Your task to perform on an android device: What's the weather going to be this weekend? Image 0: 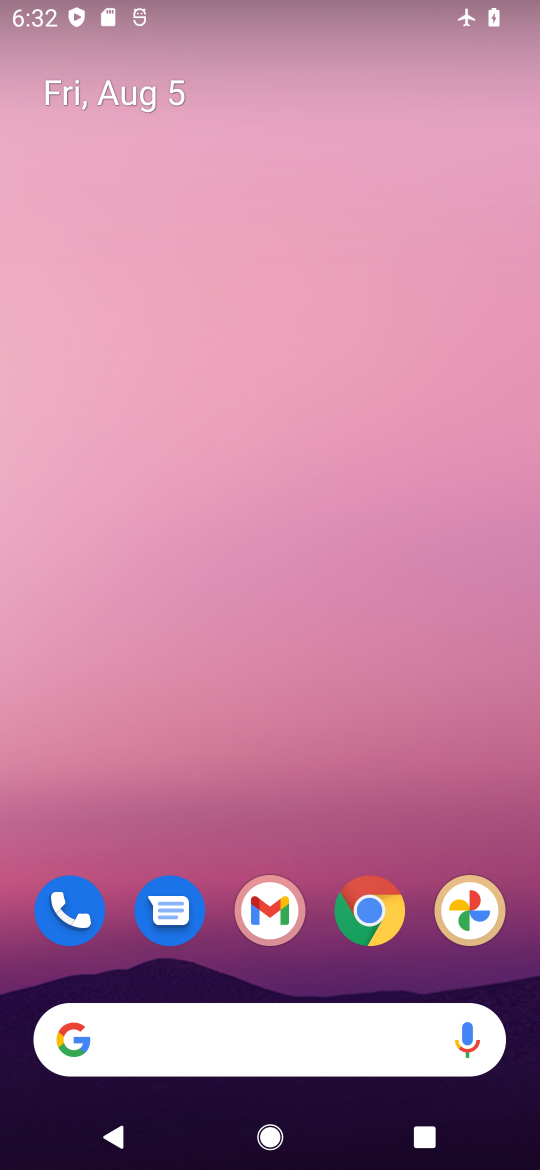
Step 0: drag from (370, 1044) to (332, 1)
Your task to perform on an android device: What's the weather going to be this weekend? Image 1: 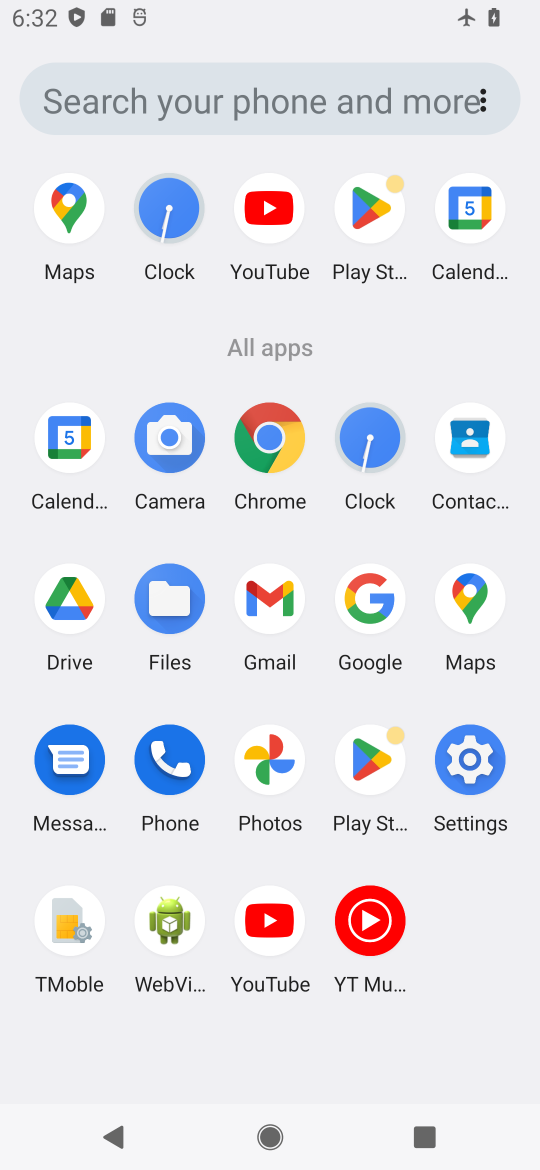
Step 1: click (377, 595)
Your task to perform on an android device: What's the weather going to be this weekend? Image 2: 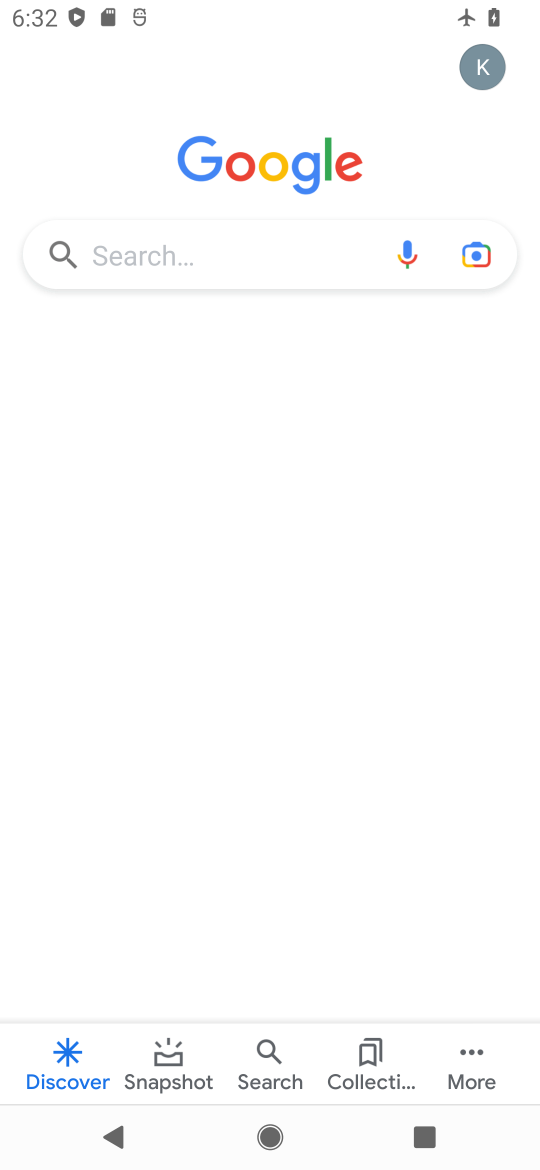
Step 2: click (259, 264)
Your task to perform on an android device: What's the weather going to be this weekend? Image 3: 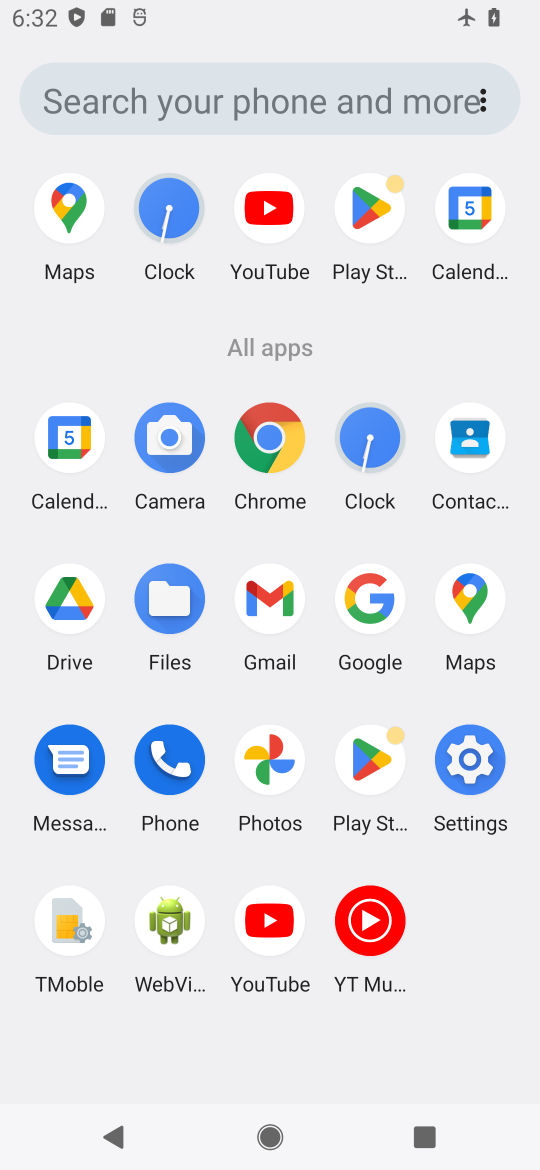
Step 3: click (392, 589)
Your task to perform on an android device: What's the weather going to be this weekend? Image 4: 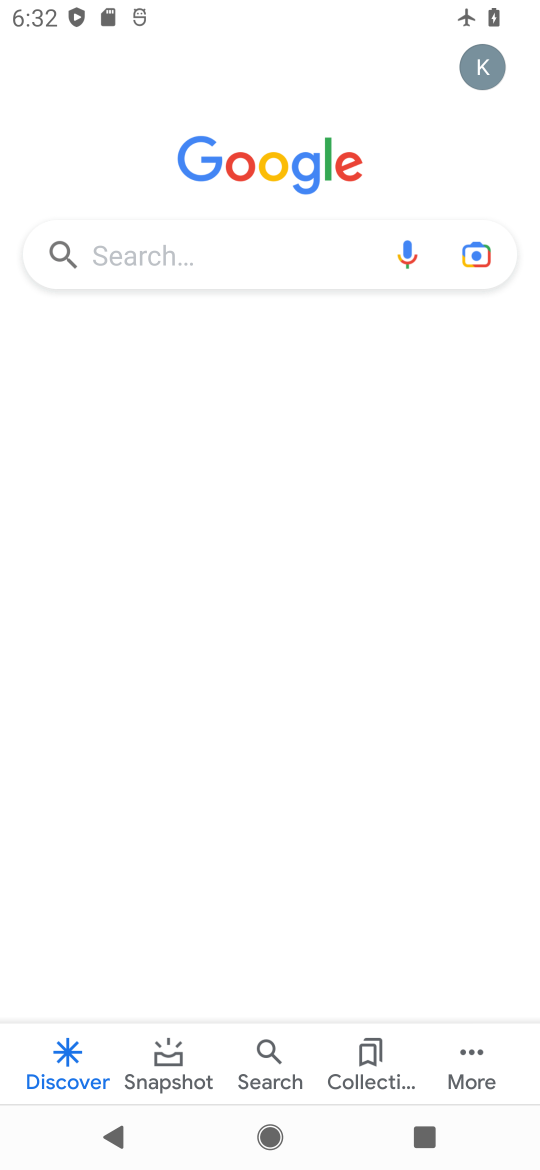
Step 4: click (334, 252)
Your task to perform on an android device: What's the weather going to be this weekend? Image 5: 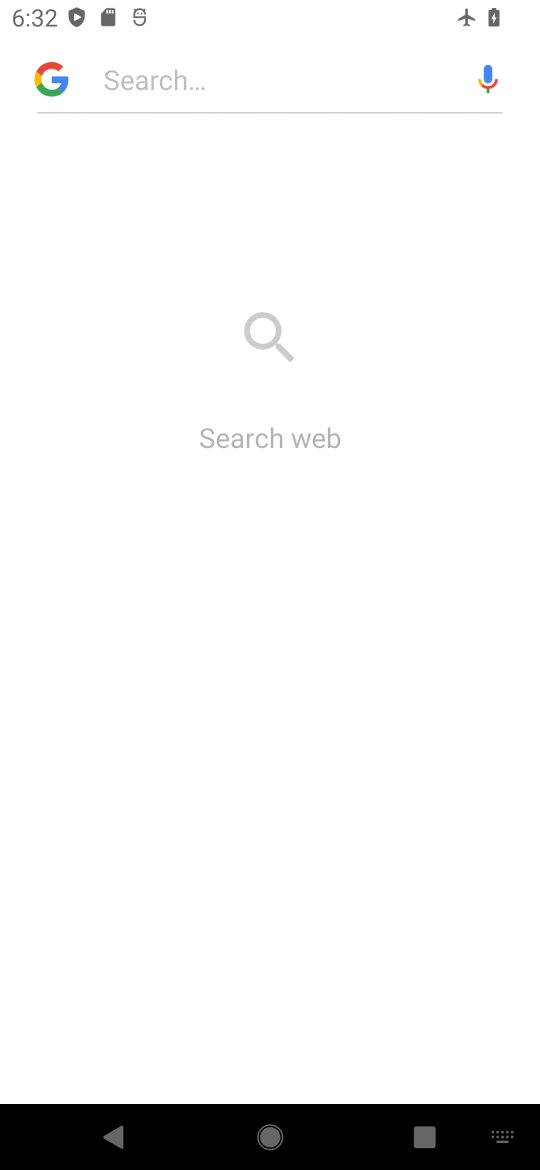
Step 5: type "weather going to be this weekend"
Your task to perform on an android device: What's the weather going to be this weekend? Image 6: 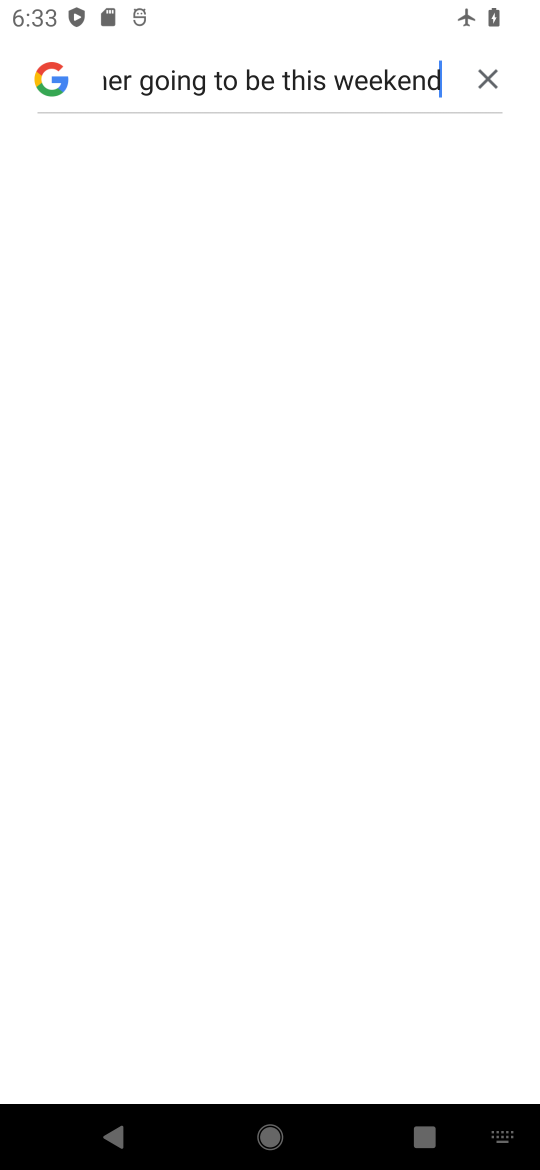
Step 6: task complete